Your task to perform on an android device: Open the calendar and show me this week's events? Image 0: 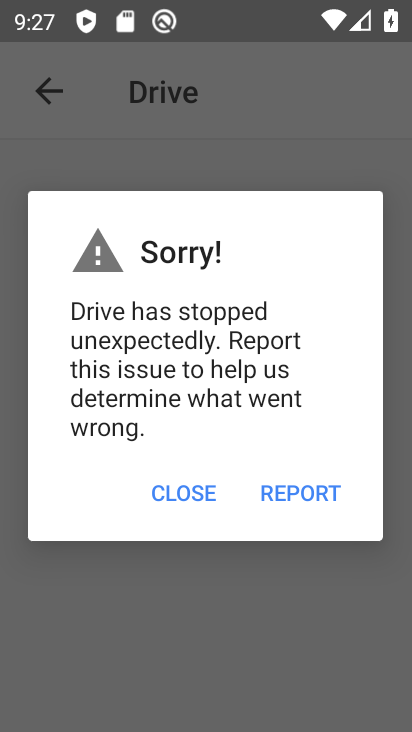
Step 0: click (185, 509)
Your task to perform on an android device: Open the calendar and show me this week's events? Image 1: 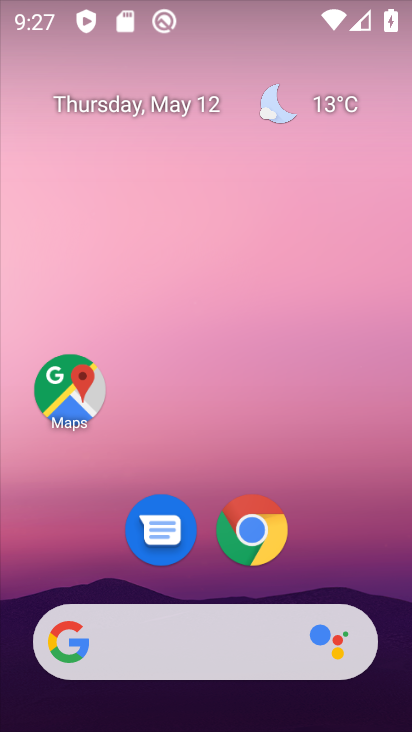
Step 1: drag from (331, 573) to (85, 0)
Your task to perform on an android device: Open the calendar and show me this week's events? Image 2: 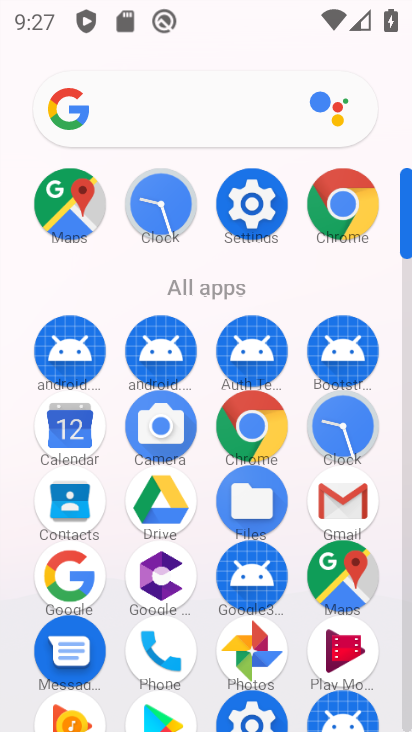
Step 2: drag from (66, 492) to (66, 448)
Your task to perform on an android device: Open the calendar and show me this week's events? Image 3: 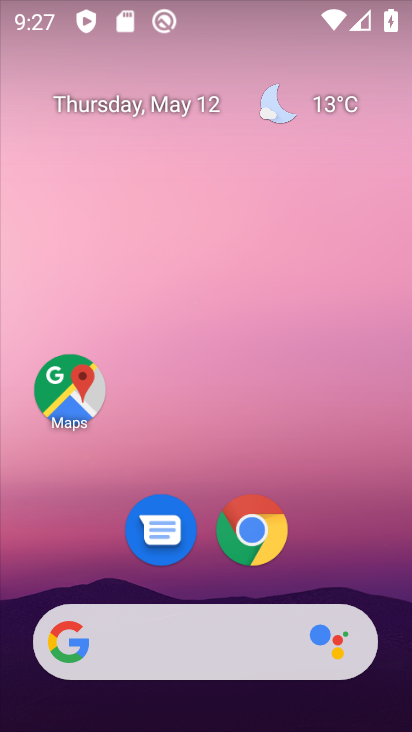
Step 3: drag from (386, 584) to (191, 8)
Your task to perform on an android device: Open the calendar and show me this week's events? Image 4: 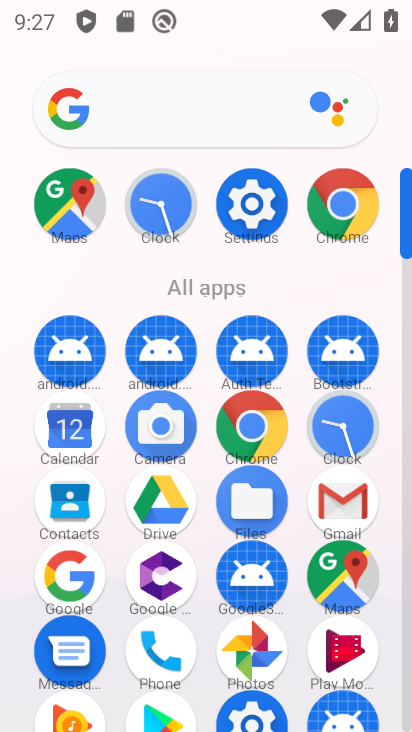
Step 4: click (92, 450)
Your task to perform on an android device: Open the calendar and show me this week's events? Image 5: 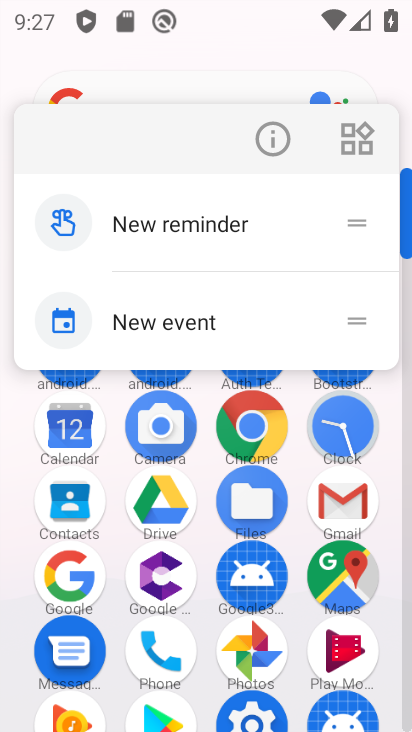
Step 5: click (72, 437)
Your task to perform on an android device: Open the calendar and show me this week's events? Image 6: 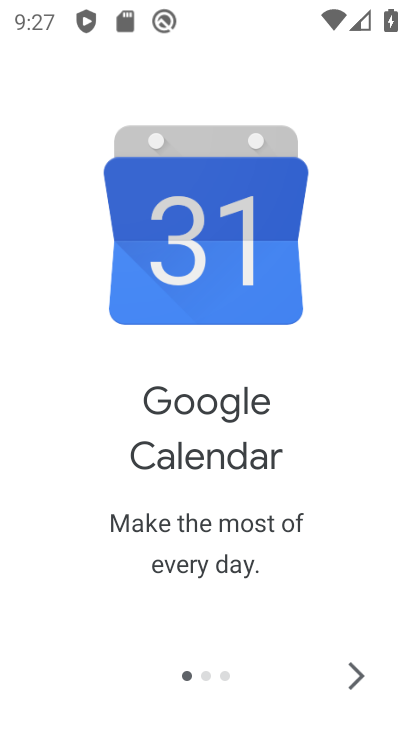
Step 6: click (351, 688)
Your task to perform on an android device: Open the calendar and show me this week's events? Image 7: 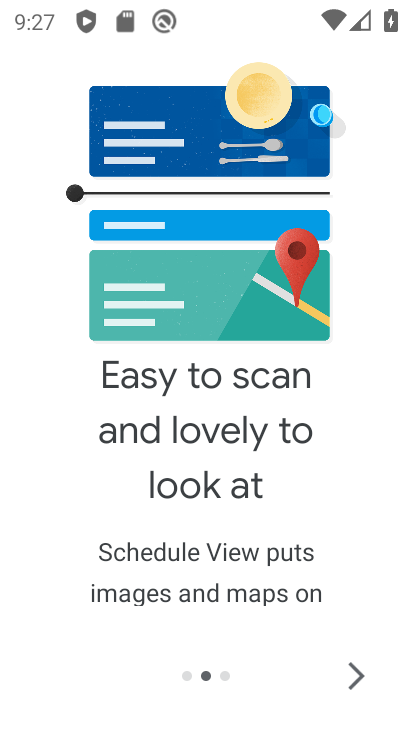
Step 7: click (361, 666)
Your task to perform on an android device: Open the calendar and show me this week's events? Image 8: 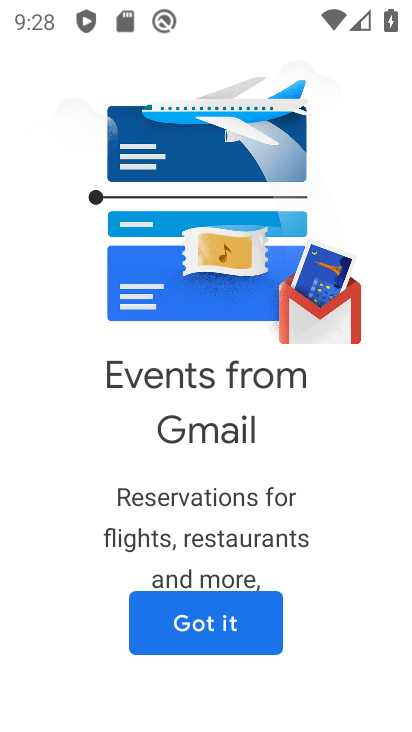
Step 8: click (356, 666)
Your task to perform on an android device: Open the calendar and show me this week's events? Image 9: 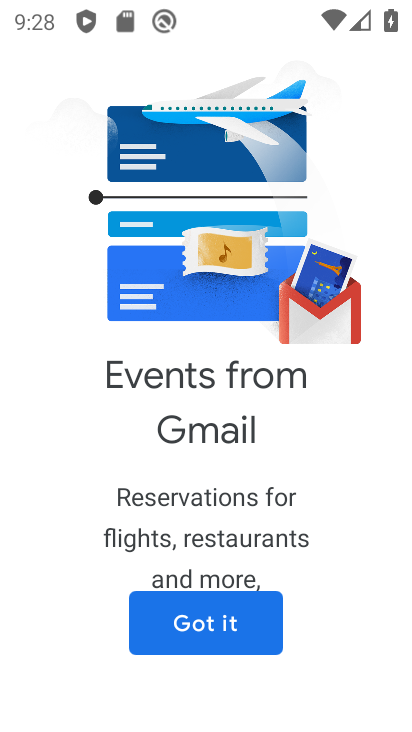
Step 9: click (229, 638)
Your task to perform on an android device: Open the calendar and show me this week's events? Image 10: 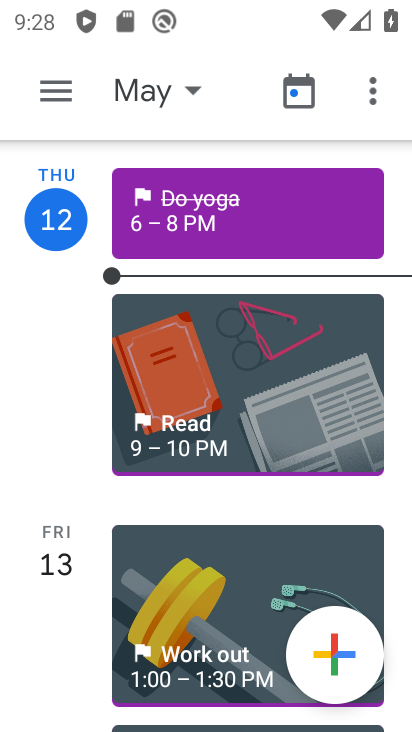
Step 10: click (53, 84)
Your task to perform on an android device: Open the calendar and show me this week's events? Image 11: 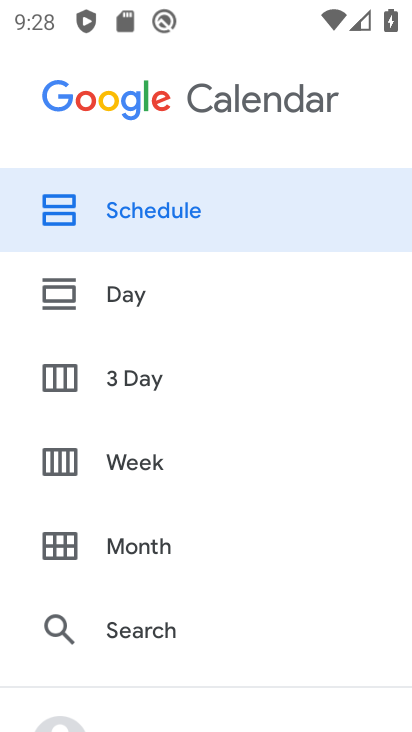
Step 11: click (150, 454)
Your task to perform on an android device: Open the calendar and show me this week's events? Image 12: 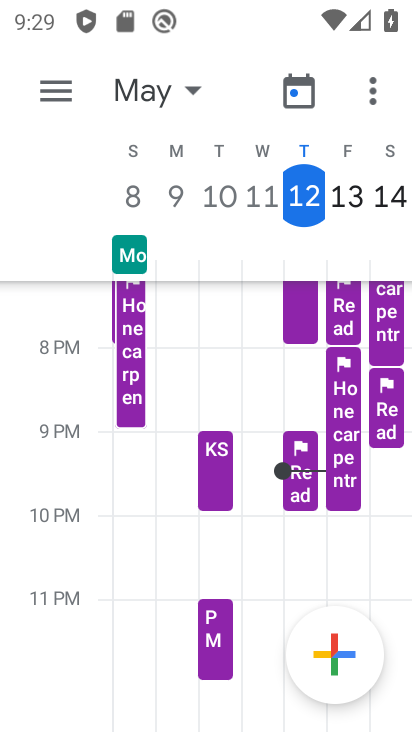
Step 12: task complete